Your task to perform on an android device: delete the emails in spam in the gmail app Image 0: 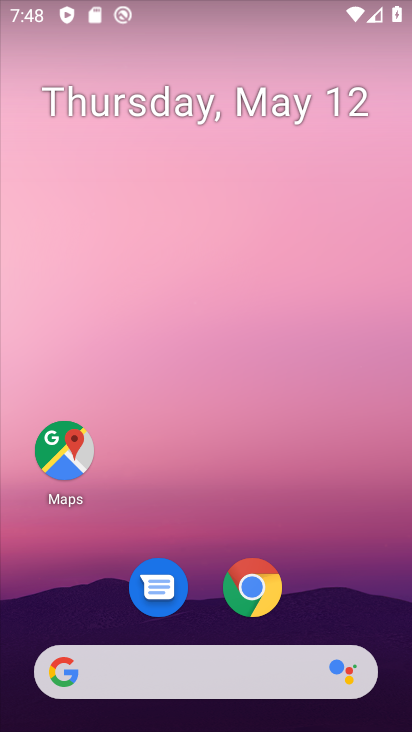
Step 0: drag from (334, 523) to (342, 303)
Your task to perform on an android device: delete the emails in spam in the gmail app Image 1: 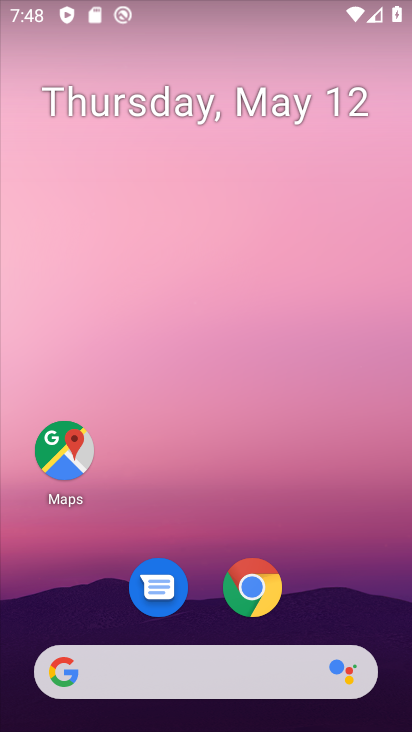
Step 1: drag from (308, 634) to (314, 240)
Your task to perform on an android device: delete the emails in spam in the gmail app Image 2: 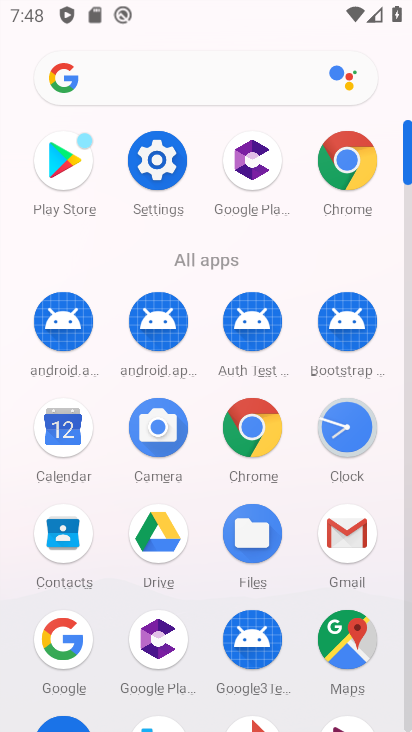
Step 2: click (346, 527)
Your task to perform on an android device: delete the emails in spam in the gmail app Image 3: 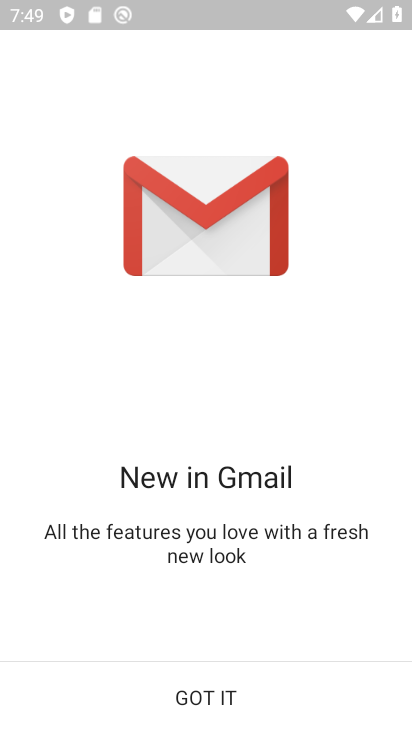
Step 3: click (246, 687)
Your task to perform on an android device: delete the emails in spam in the gmail app Image 4: 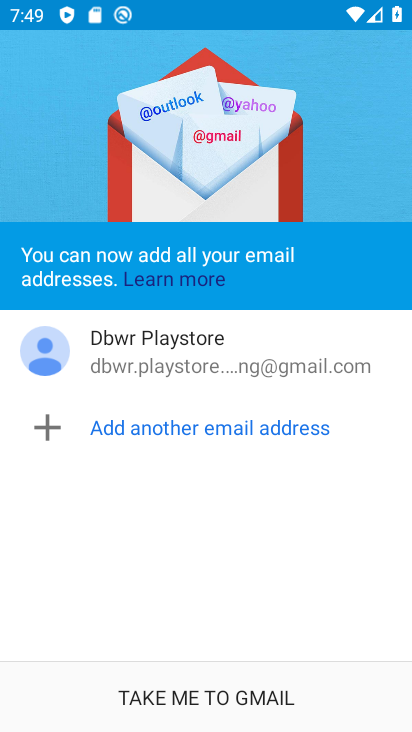
Step 4: click (245, 685)
Your task to perform on an android device: delete the emails in spam in the gmail app Image 5: 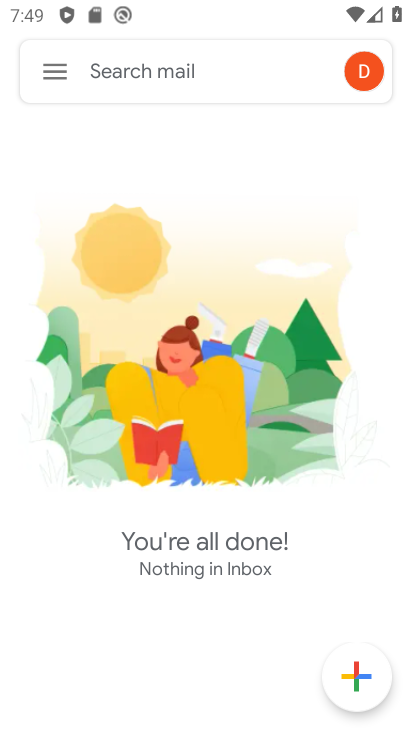
Step 5: click (60, 72)
Your task to perform on an android device: delete the emails in spam in the gmail app Image 6: 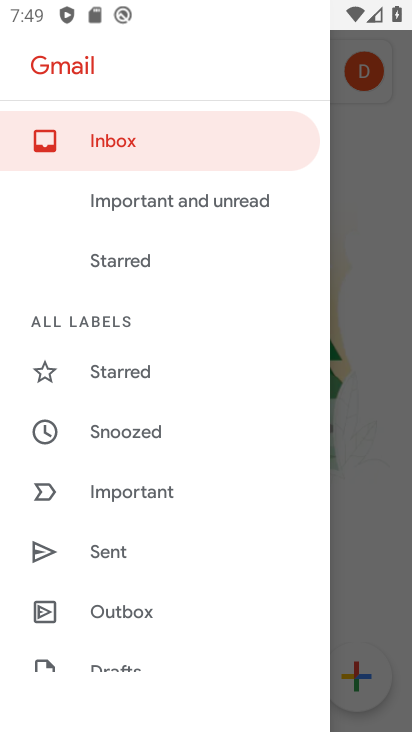
Step 6: drag from (168, 643) to (168, 363)
Your task to perform on an android device: delete the emails in spam in the gmail app Image 7: 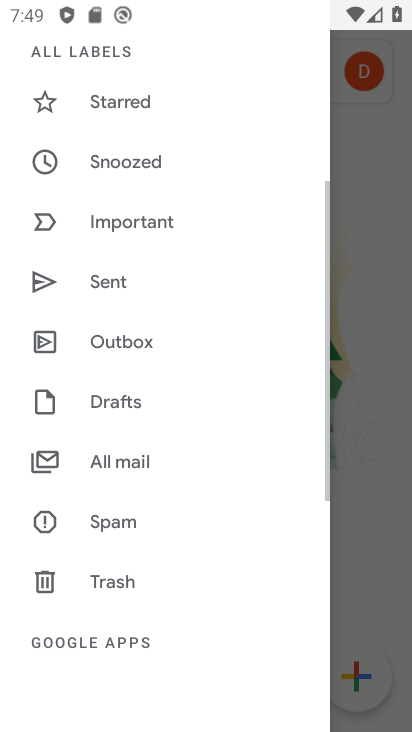
Step 7: click (104, 530)
Your task to perform on an android device: delete the emails in spam in the gmail app Image 8: 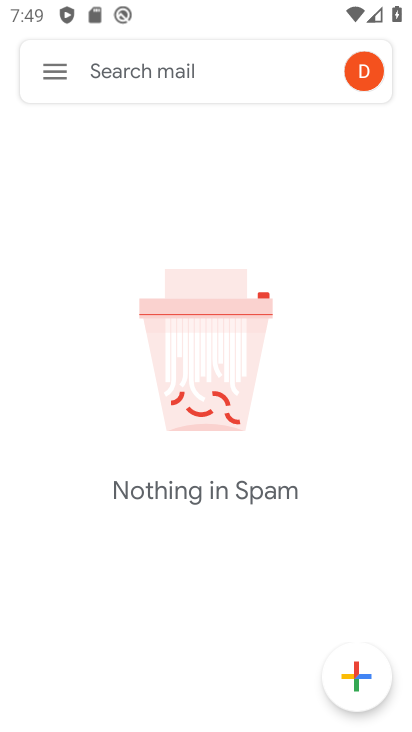
Step 8: task complete